Your task to perform on an android device: Search for "logitech g903" on target.com, select the first entry, add it to the cart, then select checkout. Image 0: 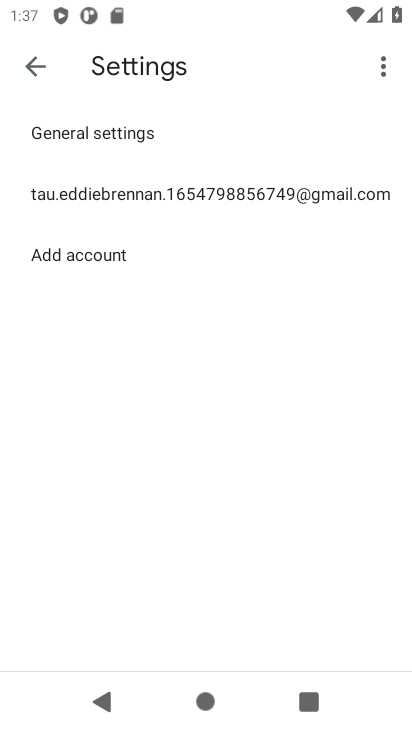
Step 0: press home button
Your task to perform on an android device: Search for "logitech g903" on target.com, select the first entry, add it to the cart, then select checkout. Image 1: 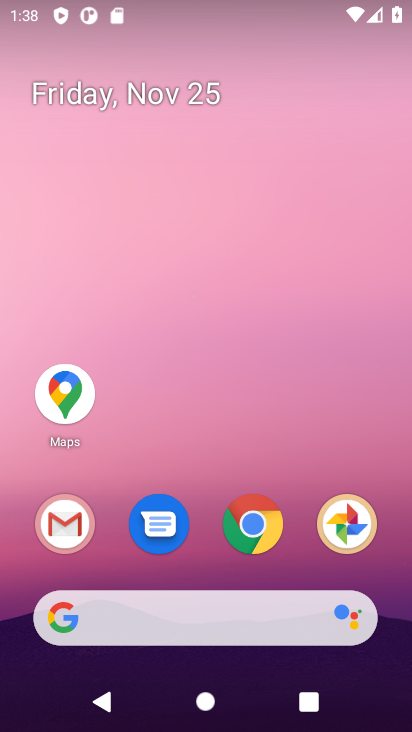
Step 1: click (252, 534)
Your task to perform on an android device: Search for "logitech g903" on target.com, select the first entry, add it to the cart, then select checkout. Image 2: 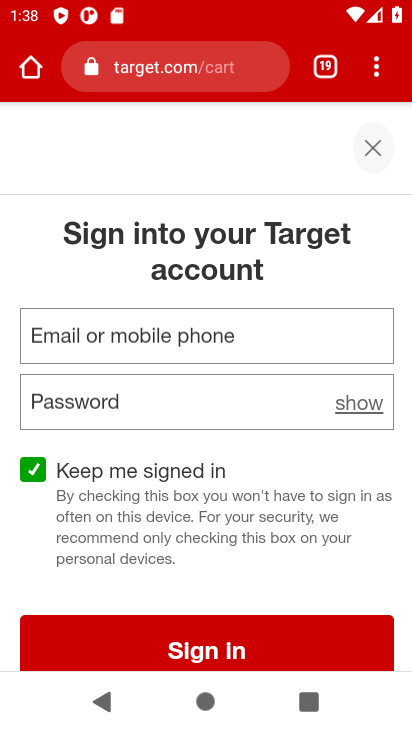
Step 2: press back button
Your task to perform on an android device: Search for "logitech g903" on target.com, select the first entry, add it to the cart, then select checkout. Image 3: 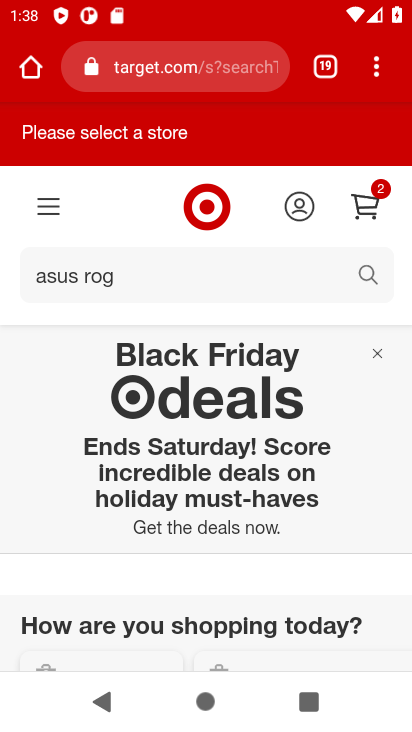
Step 3: click (109, 275)
Your task to perform on an android device: Search for "logitech g903" on target.com, select the first entry, add it to the cart, then select checkout. Image 4: 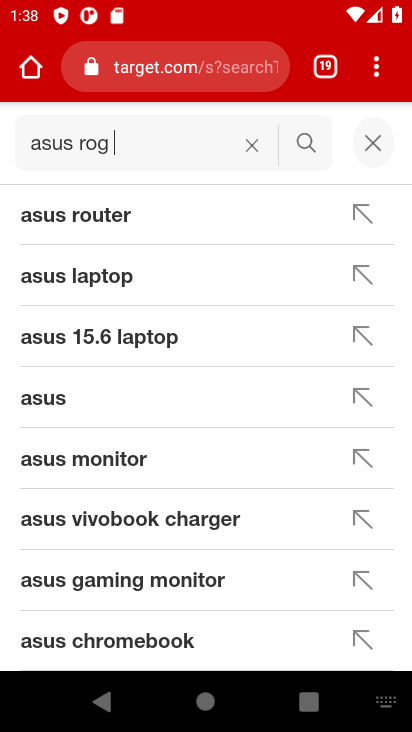
Step 4: click (252, 143)
Your task to perform on an android device: Search for "logitech g903" on target.com, select the first entry, add it to the cart, then select checkout. Image 5: 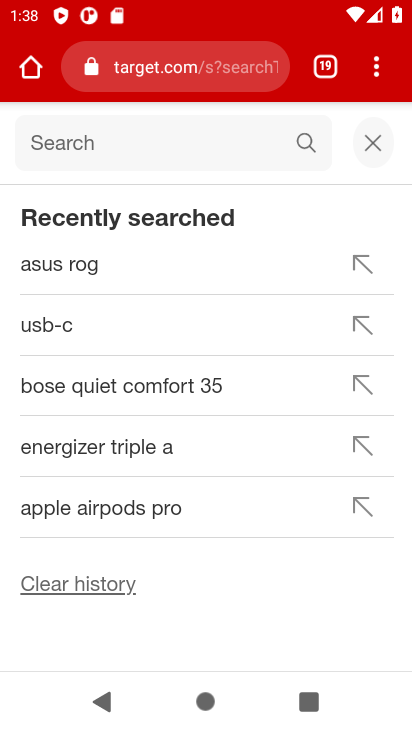
Step 5: click (84, 150)
Your task to perform on an android device: Search for "logitech g903" on target.com, select the first entry, add it to the cart, then select checkout. Image 6: 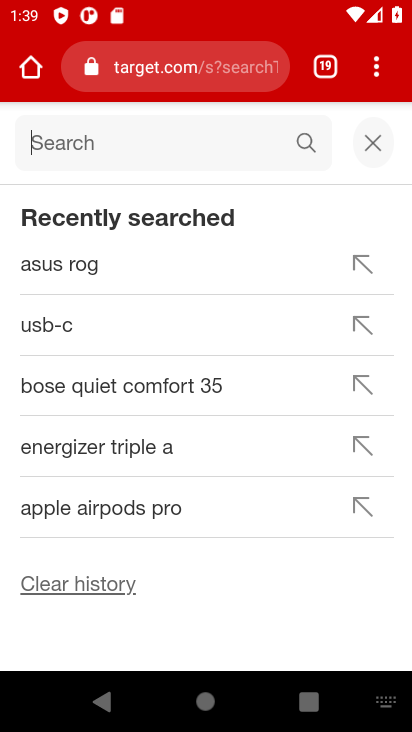
Step 6: type "logitech g903"
Your task to perform on an android device: Search for "logitech g903" on target.com, select the first entry, add it to the cart, then select checkout. Image 7: 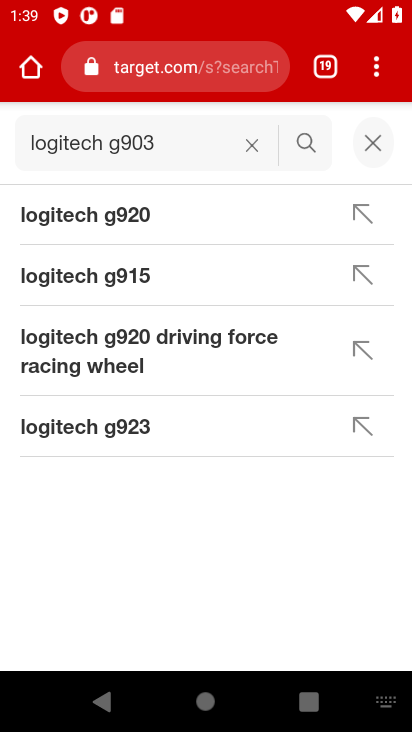
Step 7: click (301, 147)
Your task to perform on an android device: Search for "logitech g903" on target.com, select the first entry, add it to the cart, then select checkout. Image 8: 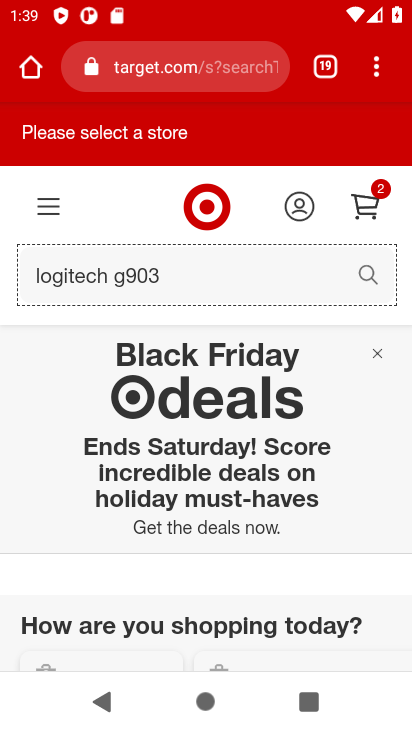
Step 8: task complete